Your task to perform on an android device: Toggle the flashlight Image 0: 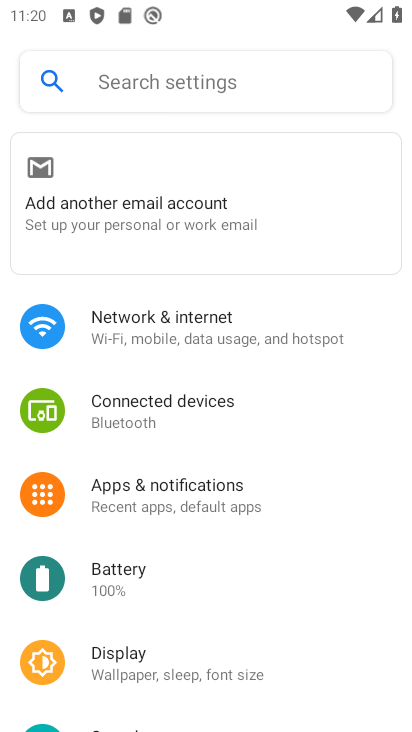
Step 0: click (285, 73)
Your task to perform on an android device: Toggle the flashlight Image 1: 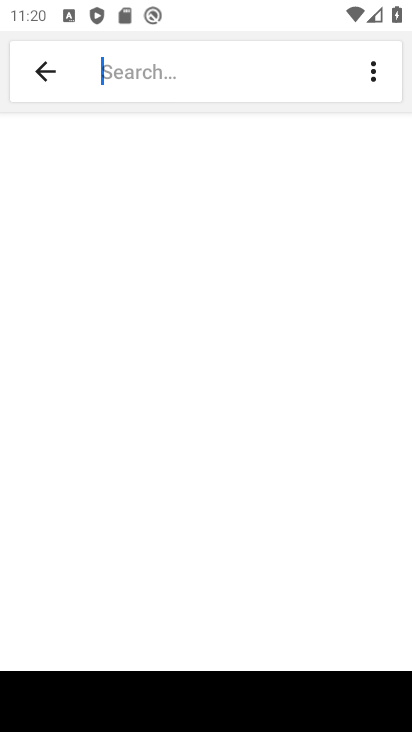
Step 1: type "Flashlight"
Your task to perform on an android device: Toggle the flashlight Image 2: 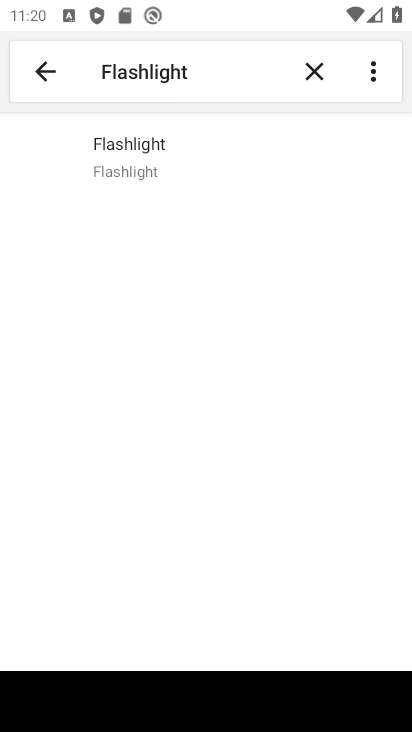
Step 2: click (136, 153)
Your task to perform on an android device: Toggle the flashlight Image 3: 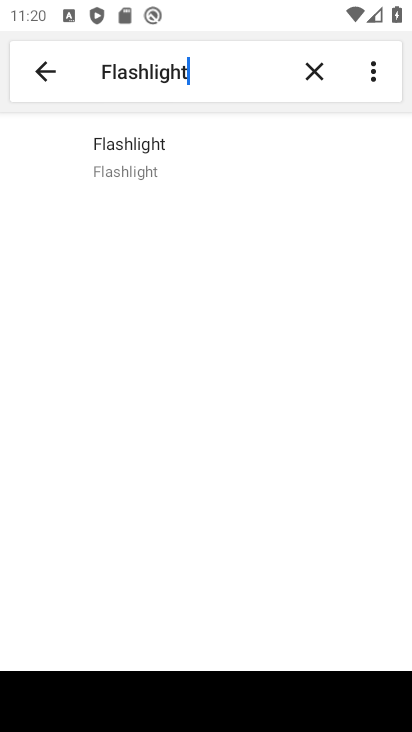
Step 3: click (136, 155)
Your task to perform on an android device: Toggle the flashlight Image 4: 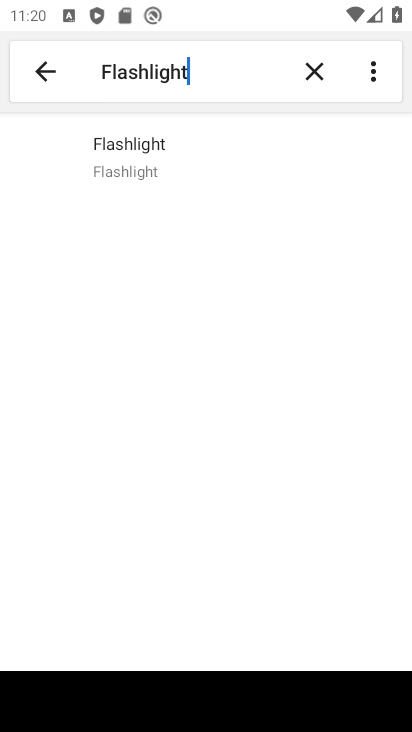
Step 4: task complete